Your task to perform on an android device: What is the news today? Image 0: 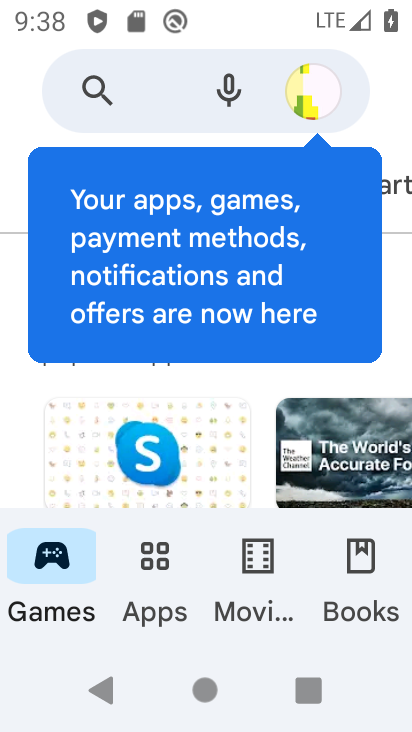
Step 0: press back button
Your task to perform on an android device: What is the news today? Image 1: 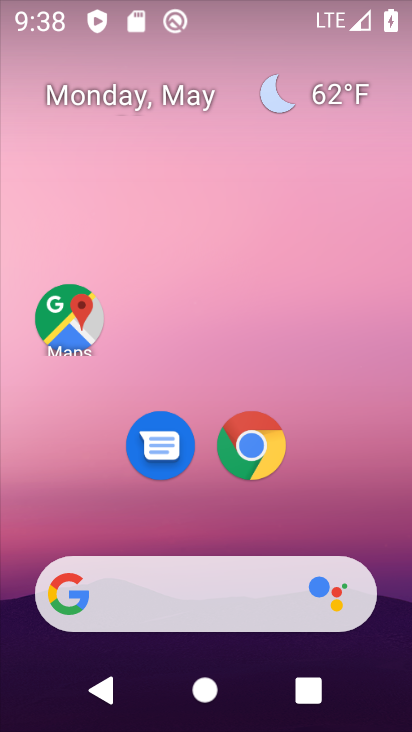
Step 1: drag from (393, 616) to (313, 104)
Your task to perform on an android device: What is the news today? Image 2: 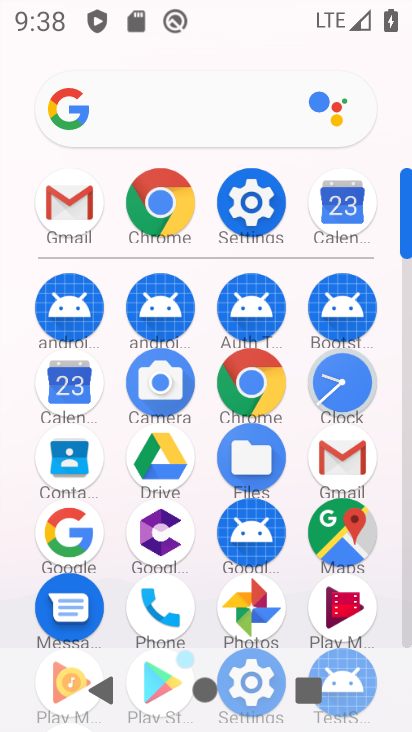
Step 2: click (49, 552)
Your task to perform on an android device: What is the news today? Image 3: 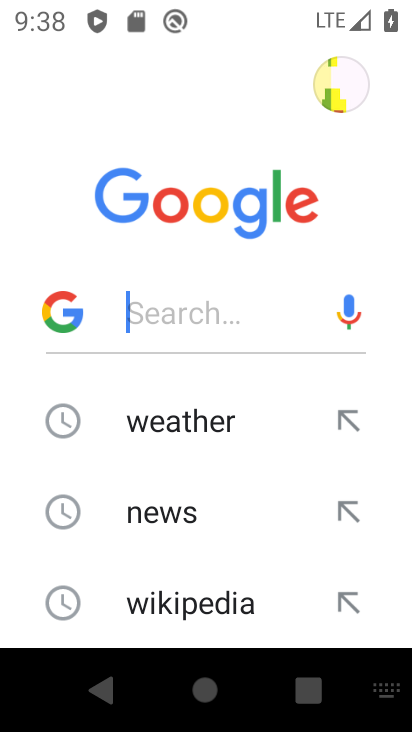
Step 3: click (161, 326)
Your task to perform on an android device: What is the news today? Image 4: 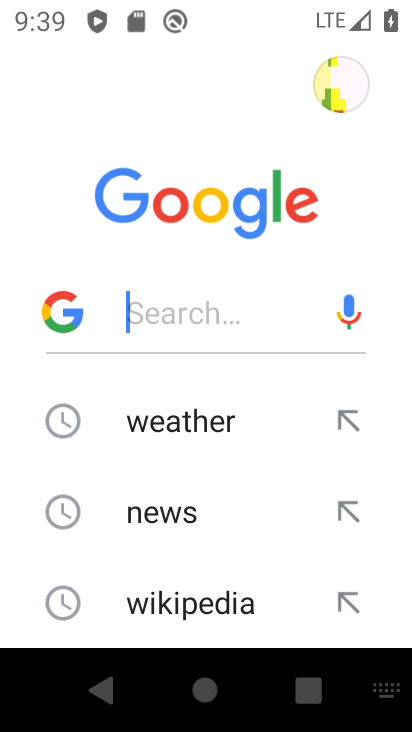
Step 4: press home button
Your task to perform on an android device: What is the news today? Image 5: 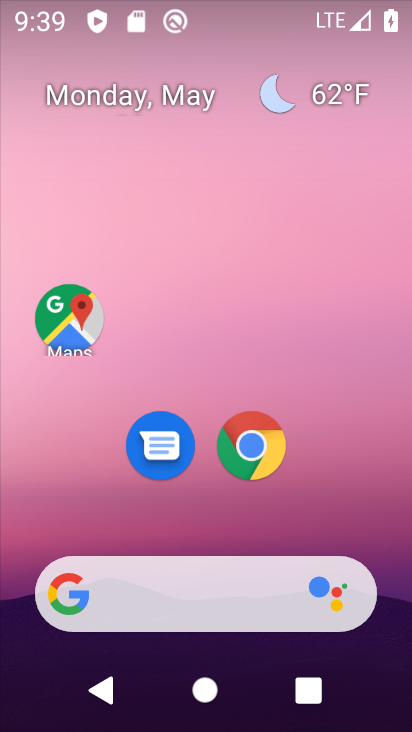
Step 5: drag from (363, 542) to (221, 34)
Your task to perform on an android device: What is the news today? Image 6: 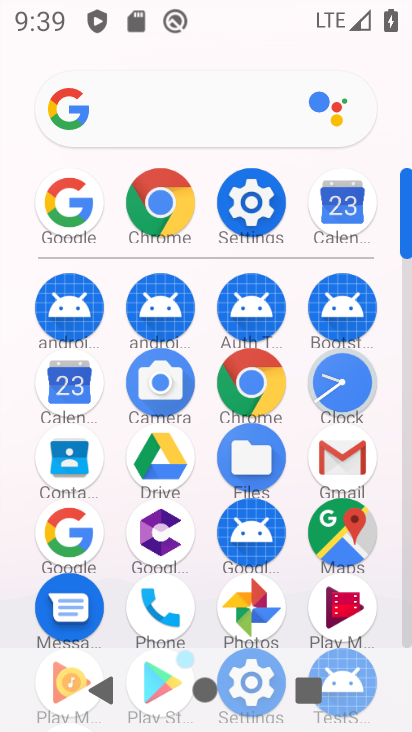
Step 6: click (66, 526)
Your task to perform on an android device: What is the news today? Image 7: 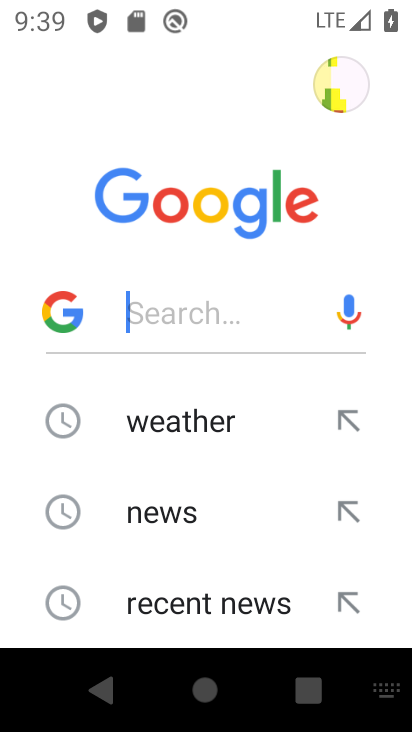
Step 7: drag from (187, 572) to (177, 104)
Your task to perform on an android device: What is the news today? Image 8: 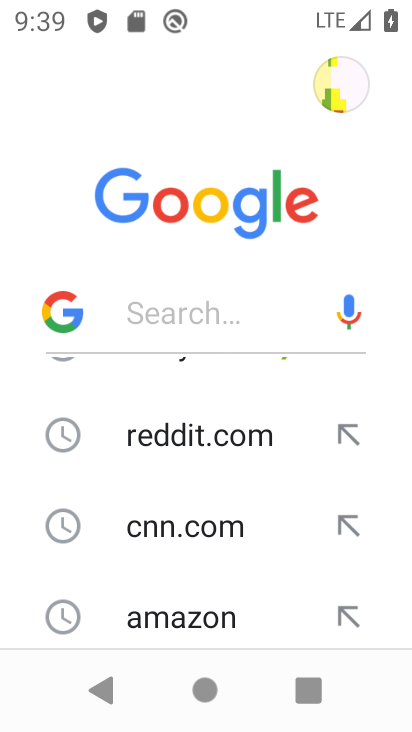
Step 8: drag from (152, 611) to (206, 219)
Your task to perform on an android device: What is the news today? Image 9: 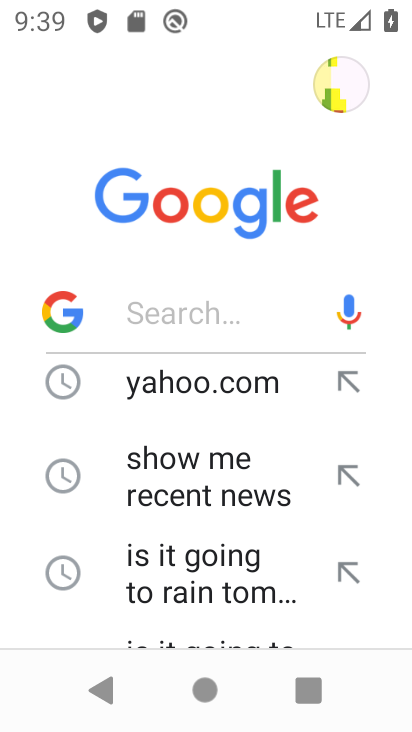
Step 9: drag from (151, 564) to (201, 360)
Your task to perform on an android device: What is the news today? Image 10: 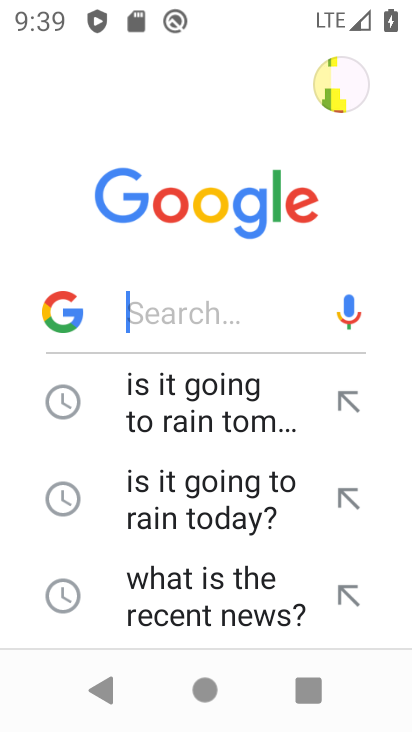
Step 10: drag from (185, 599) to (221, 361)
Your task to perform on an android device: What is the news today? Image 11: 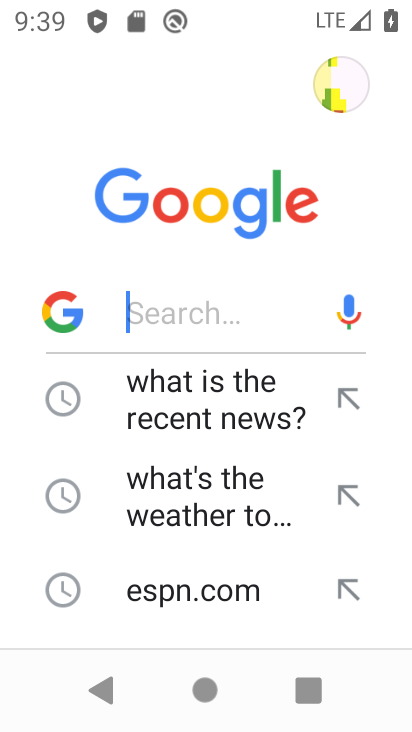
Step 11: drag from (190, 578) to (226, 327)
Your task to perform on an android device: What is the news today? Image 12: 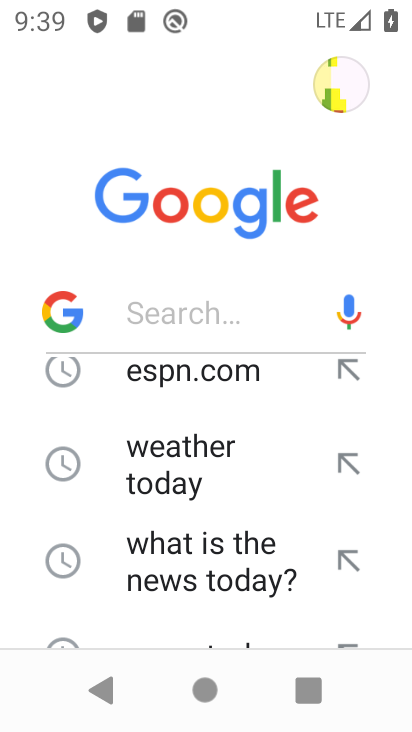
Step 12: click (182, 576)
Your task to perform on an android device: What is the news today? Image 13: 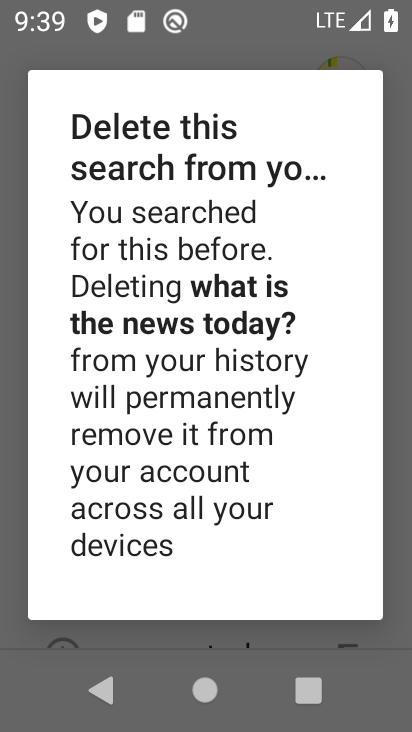
Step 13: press back button
Your task to perform on an android device: What is the news today? Image 14: 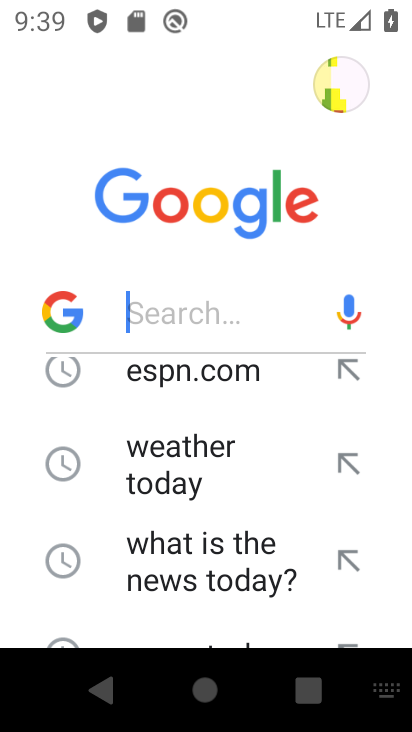
Step 14: click (216, 573)
Your task to perform on an android device: What is the news today? Image 15: 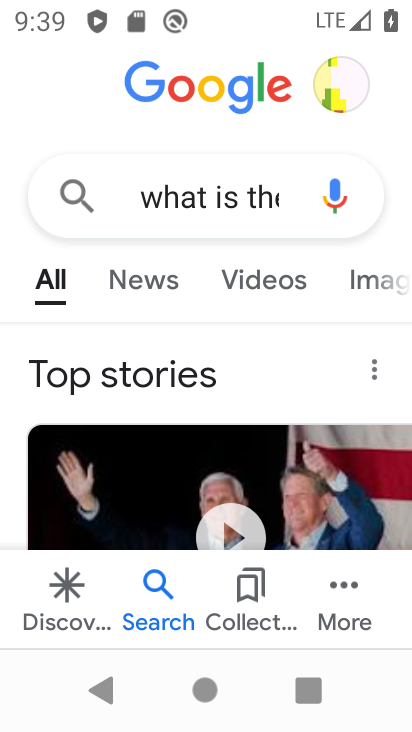
Step 15: task complete